Your task to perform on an android device: Open maps Image 0: 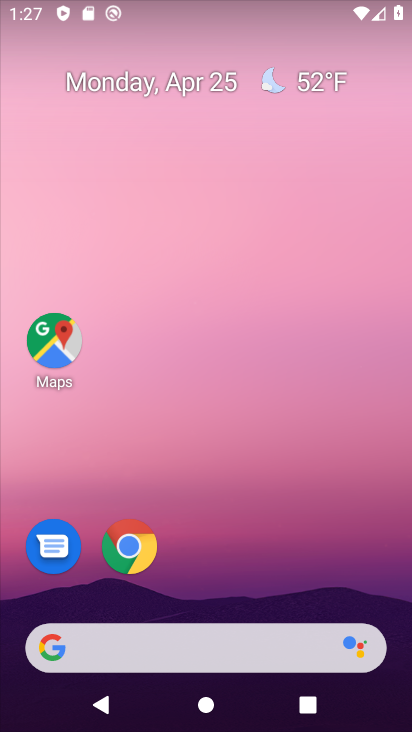
Step 0: click (61, 335)
Your task to perform on an android device: Open maps Image 1: 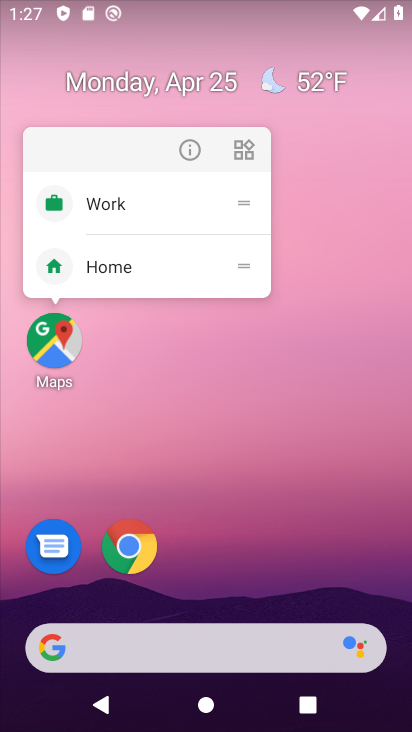
Step 1: click (61, 335)
Your task to perform on an android device: Open maps Image 2: 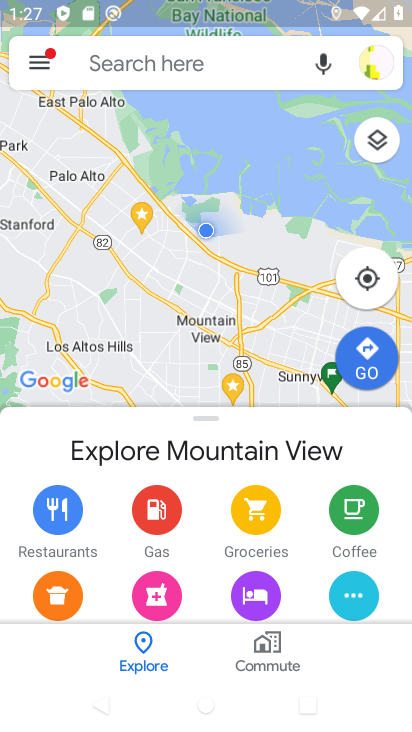
Step 2: task complete